Your task to perform on an android device: Open Yahoo.com Image 0: 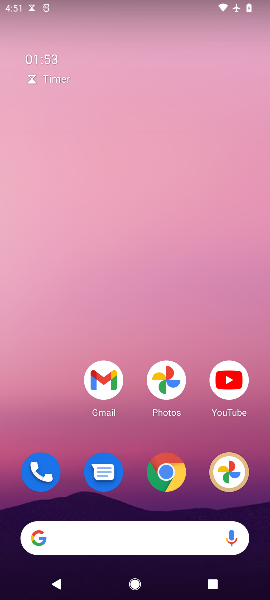
Step 0: click (181, 468)
Your task to perform on an android device: Open Yahoo.com Image 1: 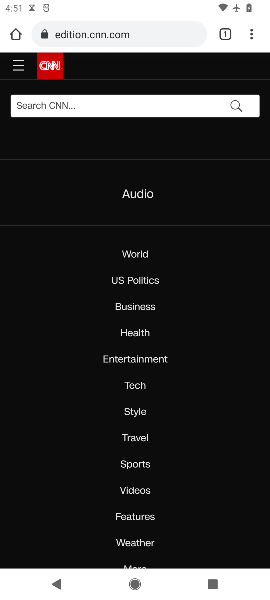
Step 1: click (142, 33)
Your task to perform on an android device: Open Yahoo.com Image 2: 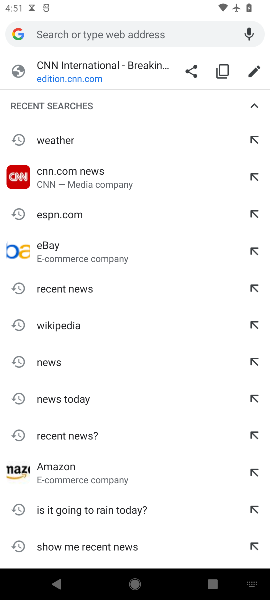
Step 2: type "yahoo.com"
Your task to perform on an android device: Open Yahoo.com Image 3: 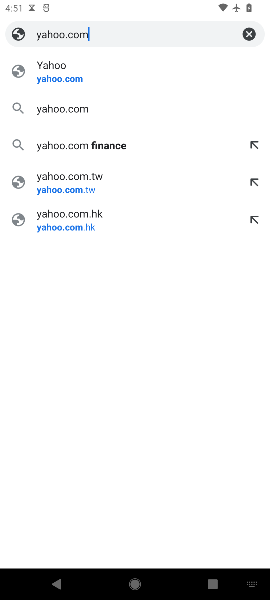
Step 3: click (70, 74)
Your task to perform on an android device: Open Yahoo.com Image 4: 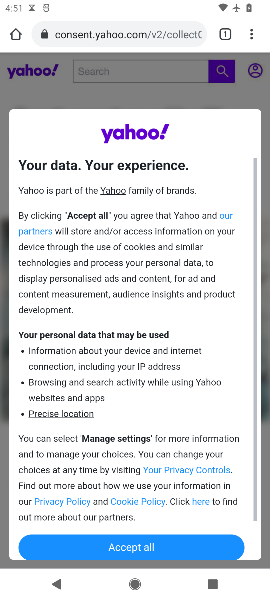
Step 4: task complete